Your task to perform on an android device: install app "Duolingo: language lessons" Image 0: 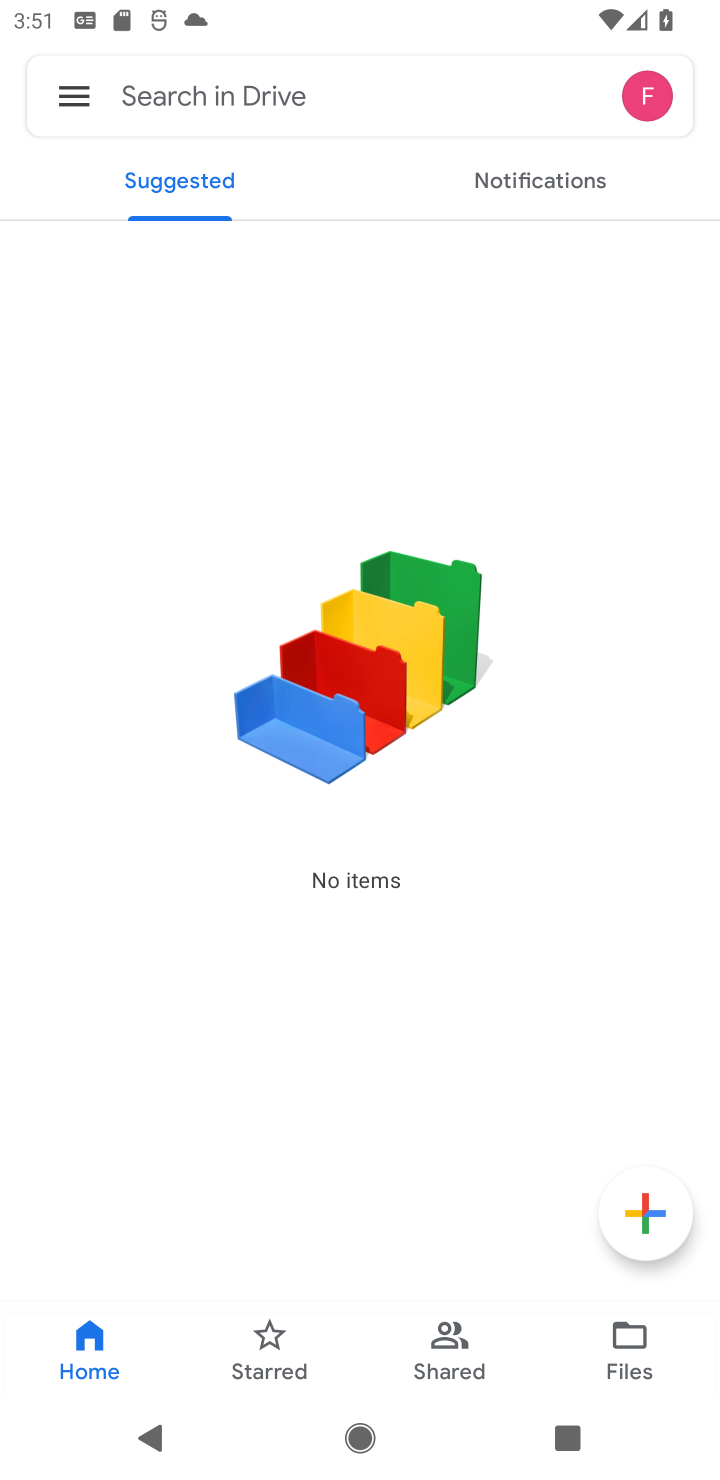
Step 0: press home button
Your task to perform on an android device: install app "Duolingo: language lessons" Image 1: 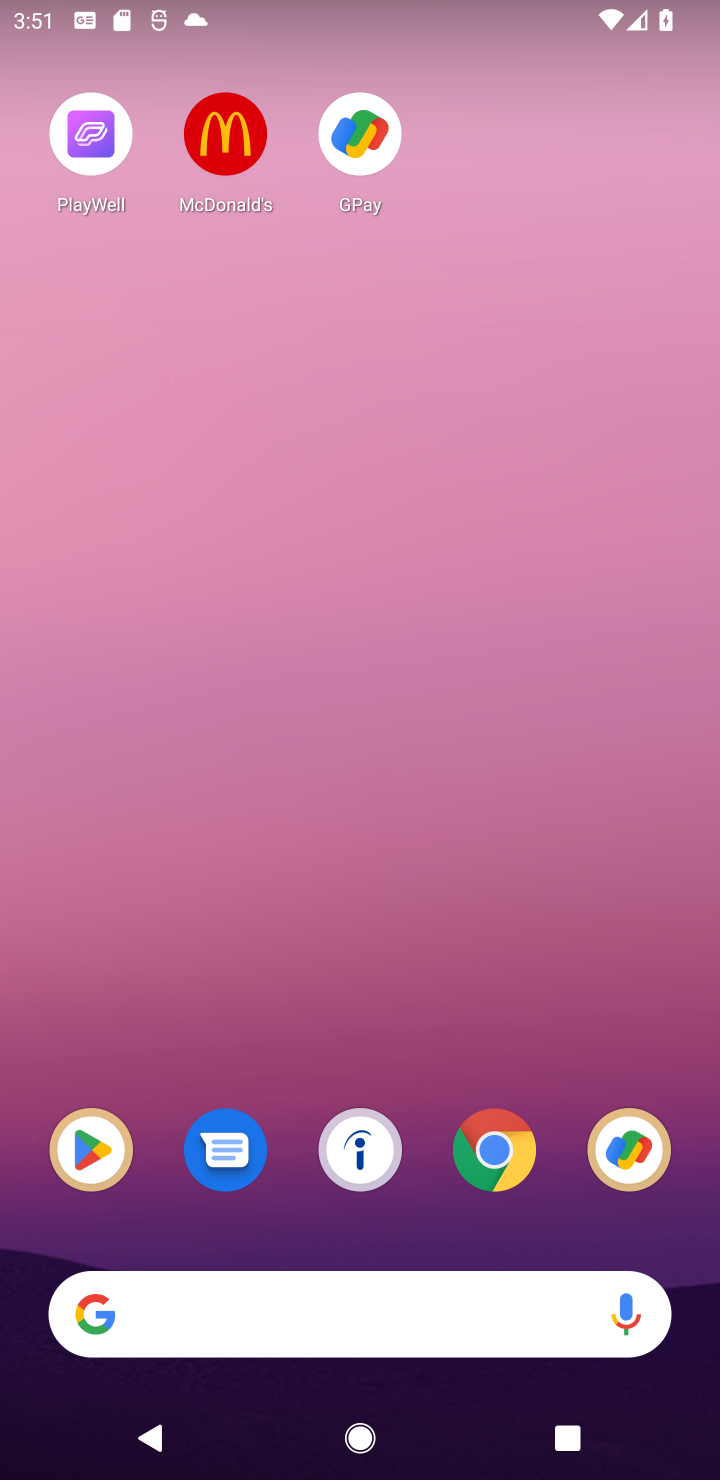
Step 1: click (86, 1168)
Your task to perform on an android device: install app "Duolingo: language lessons" Image 2: 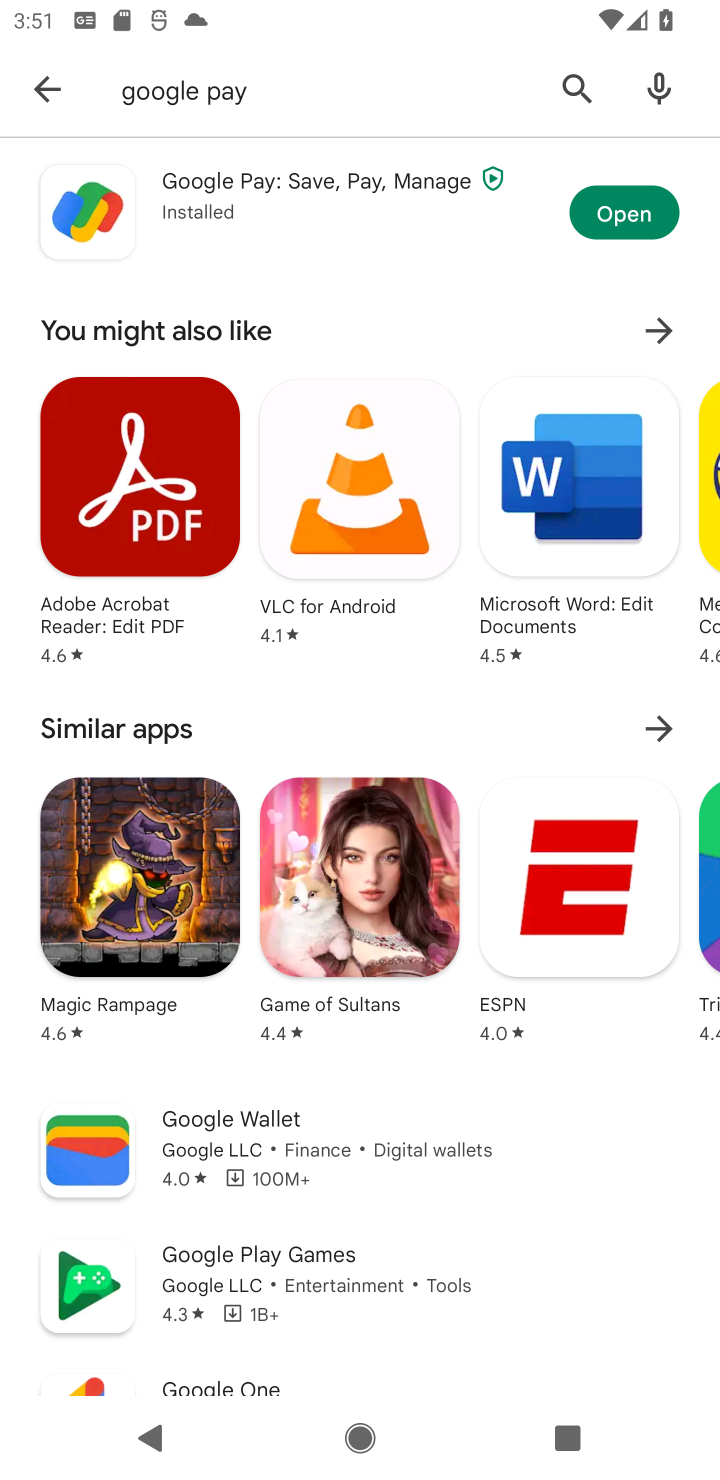
Step 2: click (565, 106)
Your task to perform on an android device: install app "Duolingo: language lessons" Image 3: 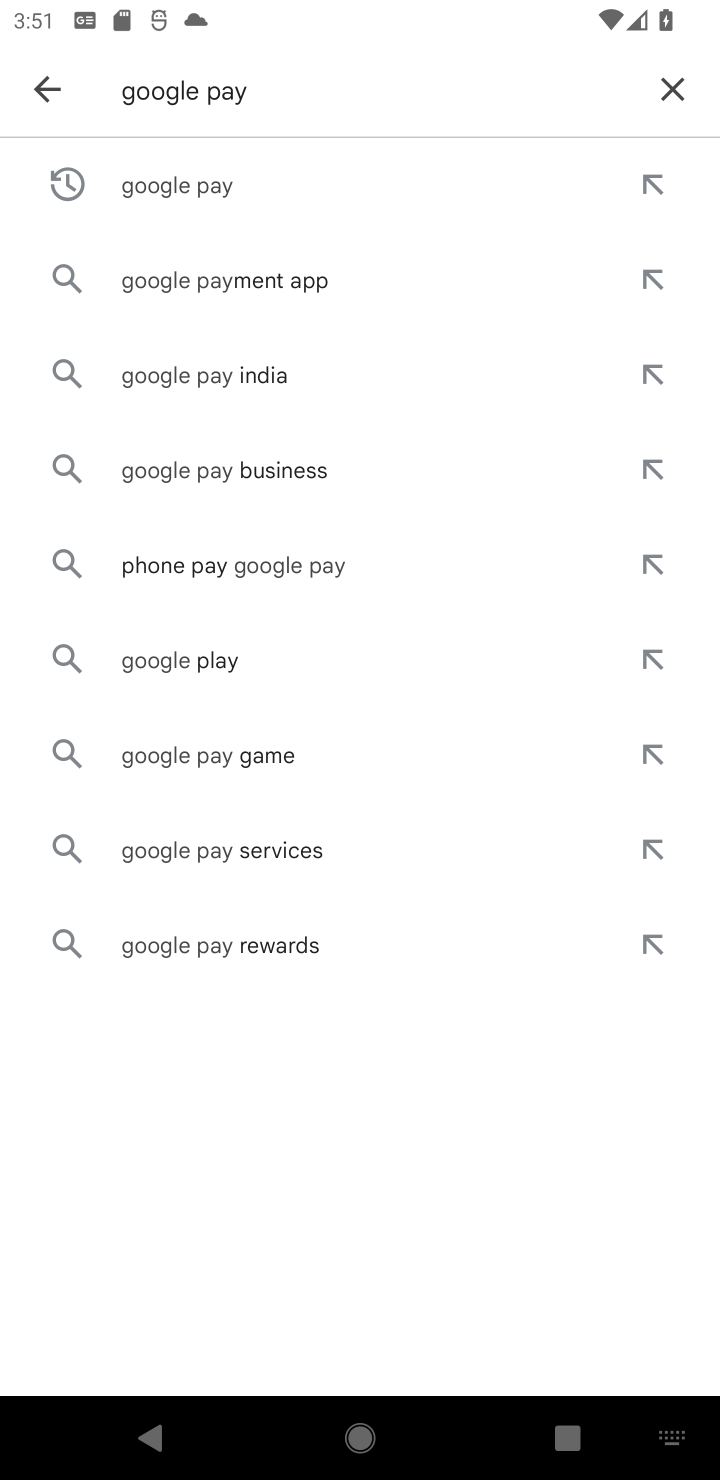
Step 3: click (665, 89)
Your task to perform on an android device: install app "Duolingo: language lessons" Image 4: 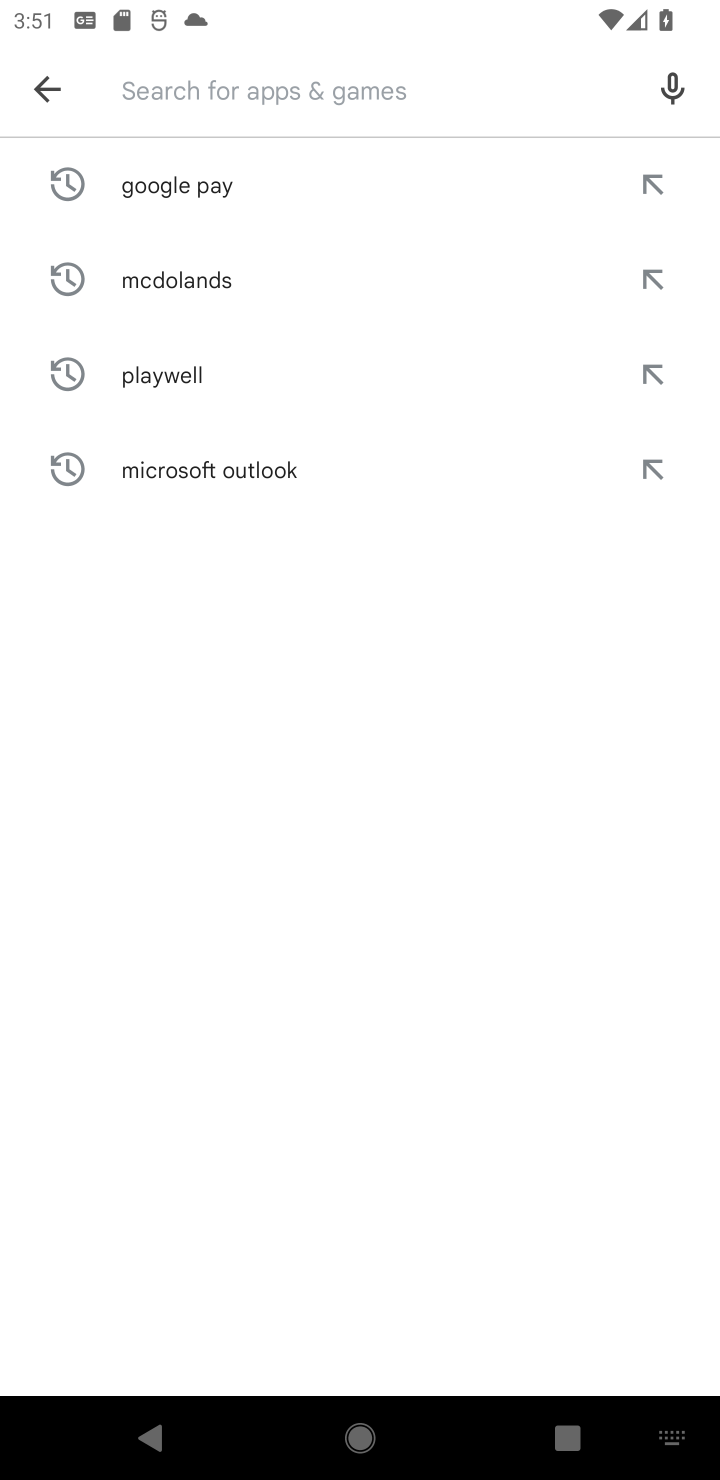
Step 4: type "duolingo"
Your task to perform on an android device: install app "Duolingo: language lessons" Image 5: 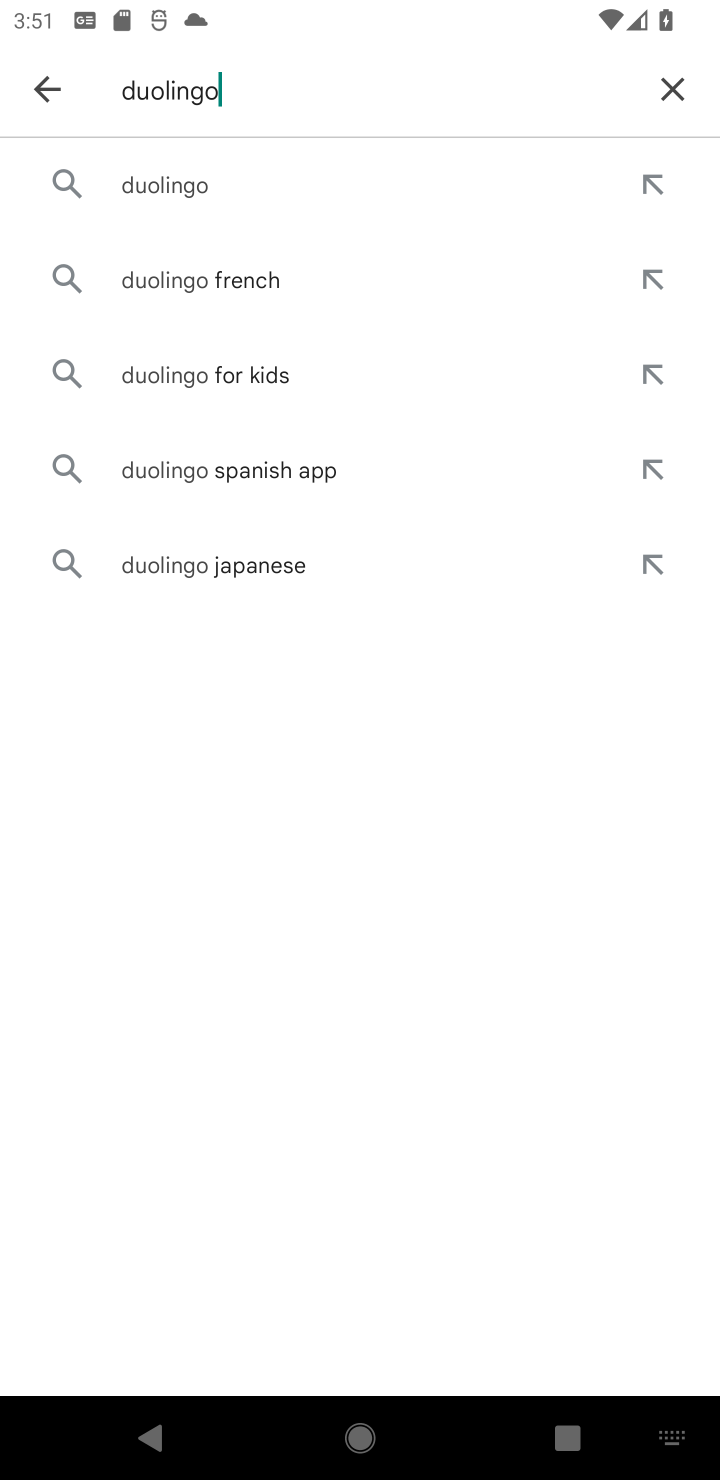
Step 5: click (280, 198)
Your task to perform on an android device: install app "Duolingo: language lessons" Image 6: 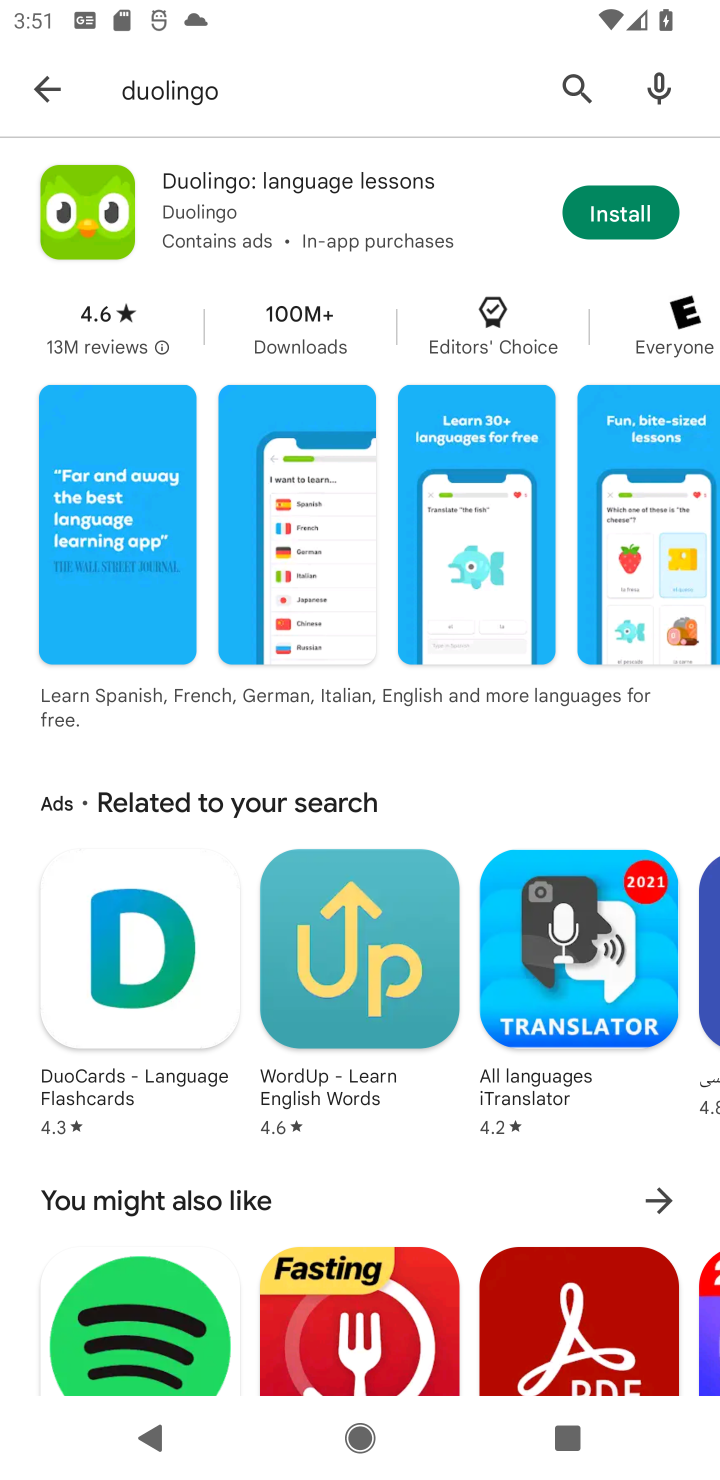
Step 6: click (613, 211)
Your task to perform on an android device: install app "Duolingo: language lessons" Image 7: 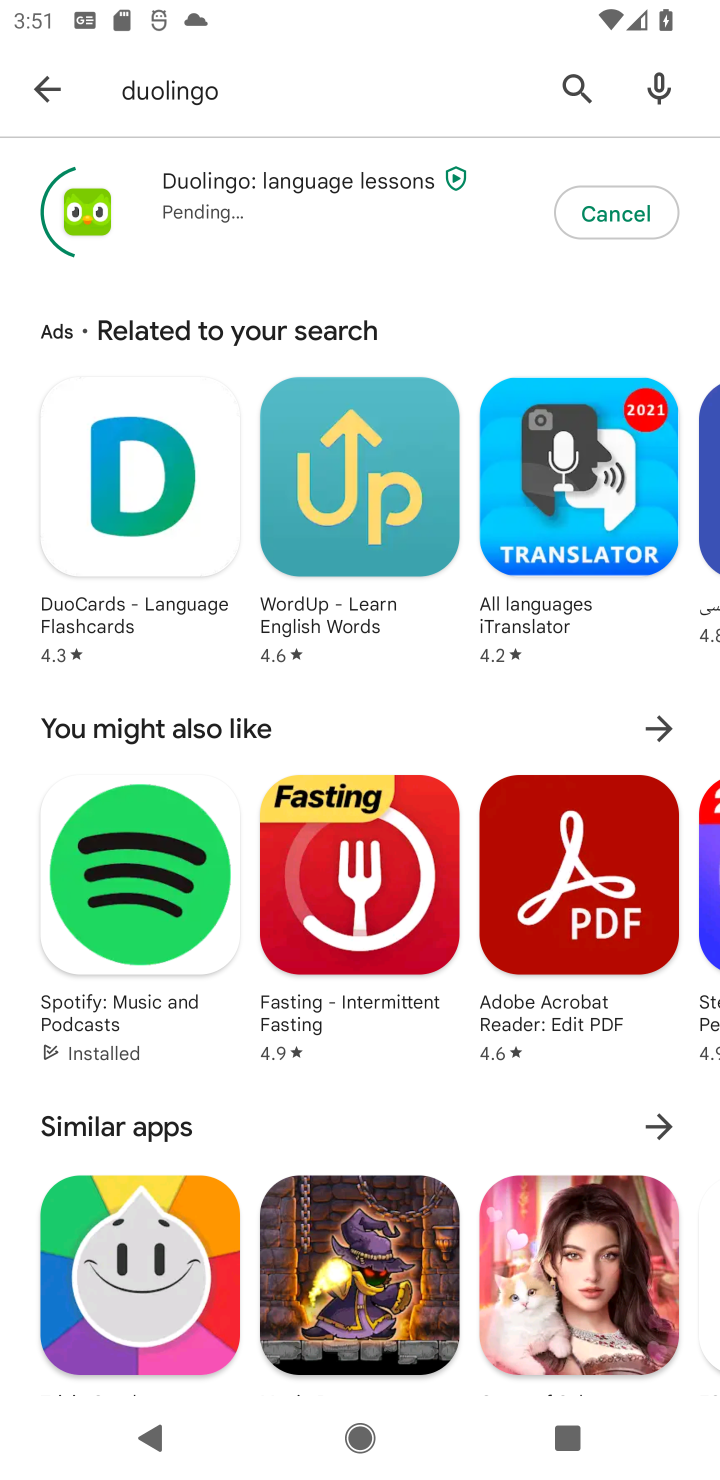
Step 7: task complete